Your task to perform on an android device: find which apps use the phone's location Image 0: 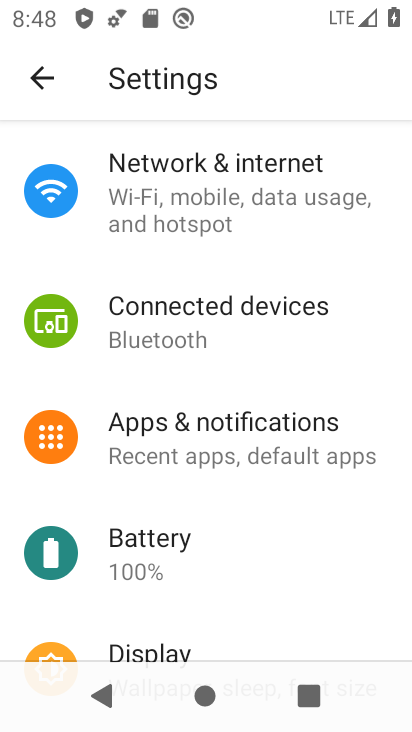
Step 0: drag from (192, 641) to (255, 149)
Your task to perform on an android device: find which apps use the phone's location Image 1: 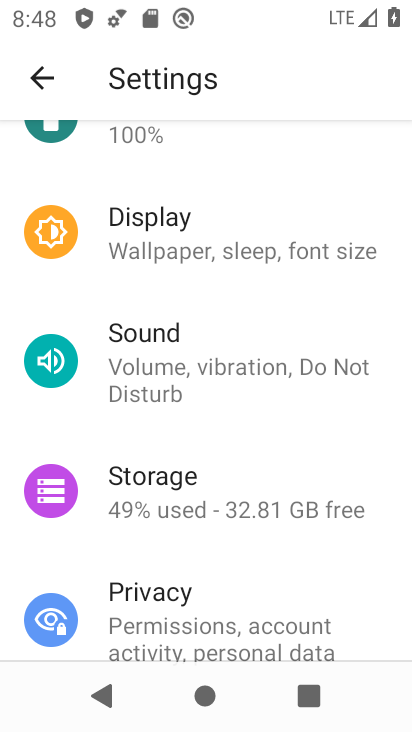
Step 1: drag from (174, 599) to (228, 85)
Your task to perform on an android device: find which apps use the phone's location Image 2: 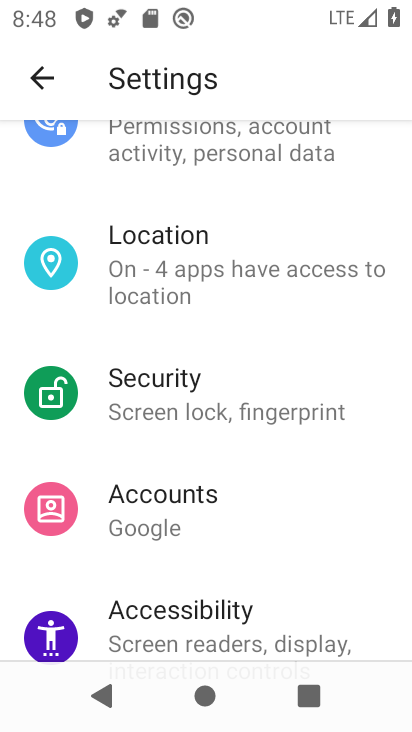
Step 2: click (134, 267)
Your task to perform on an android device: find which apps use the phone's location Image 3: 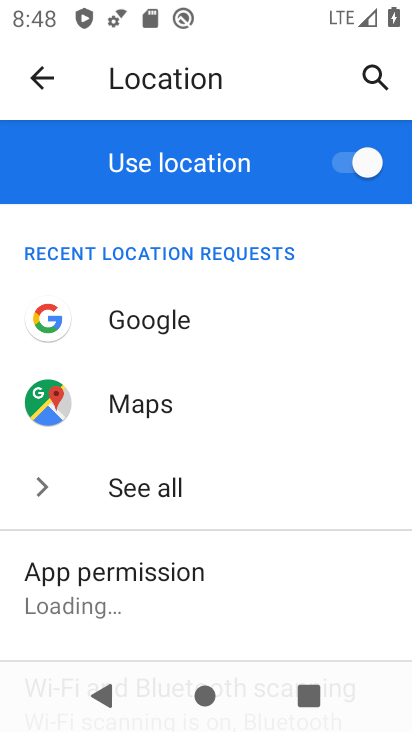
Step 3: click (140, 571)
Your task to perform on an android device: find which apps use the phone's location Image 4: 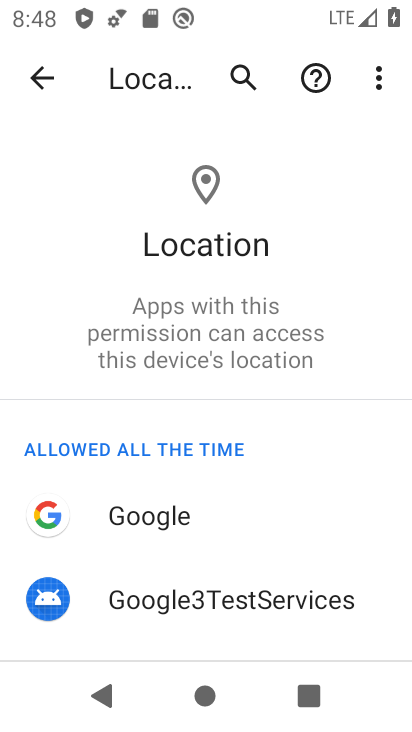
Step 4: task complete